Your task to perform on an android device: Open Amazon Image 0: 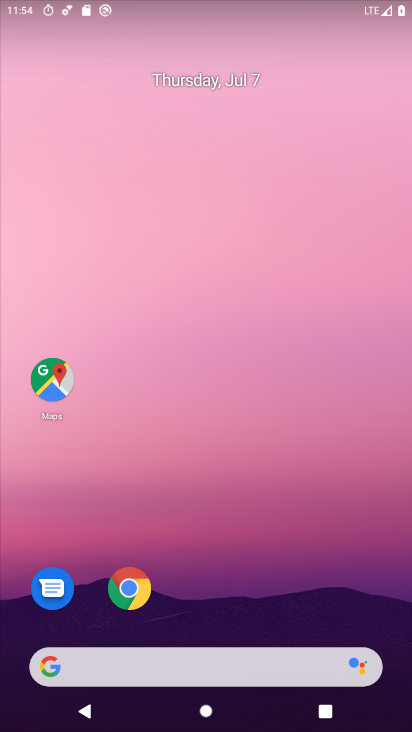
Step 0: click (135, 579)
Your task to perform on an android device: Open Amazon Image 1: 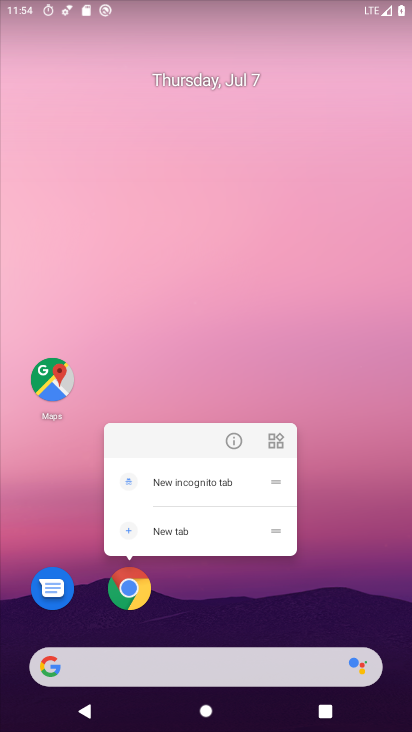
Step 1: click (129, 589)
Your task to perform on an android device: Open Amazon Image 2: 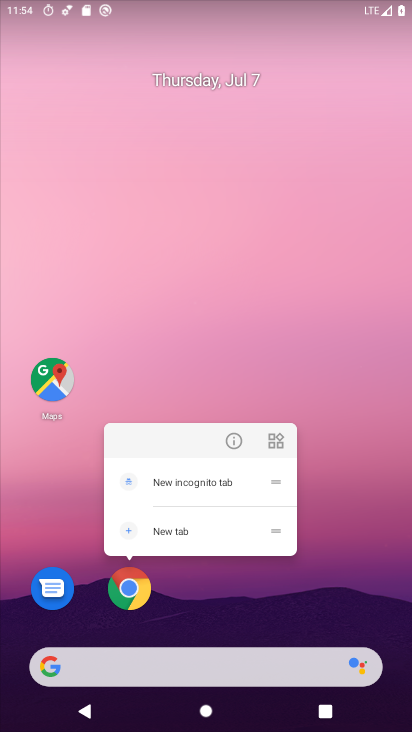
Step 2: click (129, 589)
Your task to perform on an android device: Open Amazon Image 3: 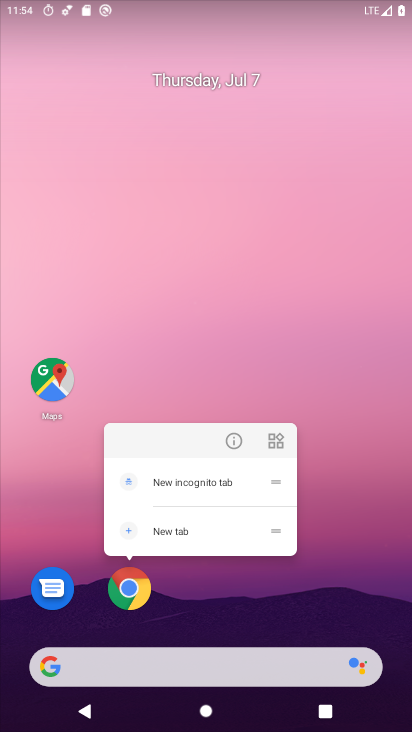
Step 3: click (122, 596)
Your task to perform on an android device: Open Amazon Image 4: 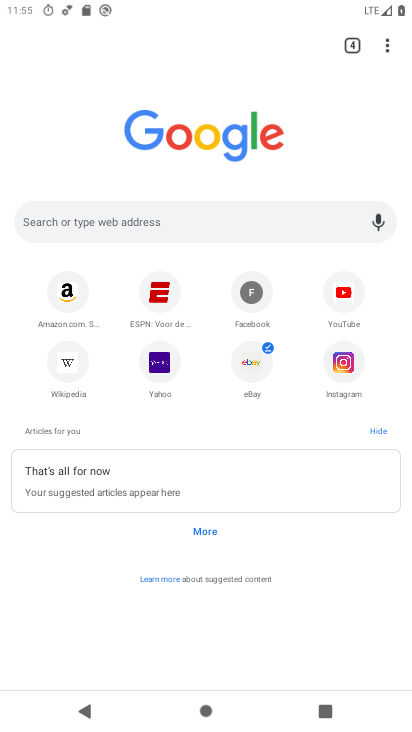
Step 4: click (63, 298)
Your task to perform on an android device: Open Amazon Image 5: 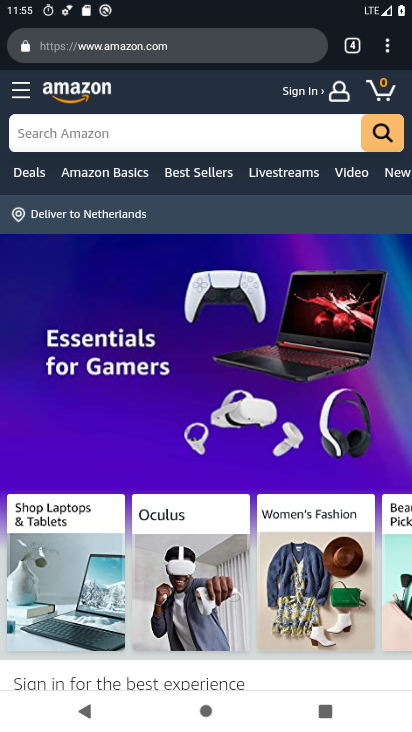
Step 5: task complete